Your task to perform on an android device: What is the news today? Image 0: 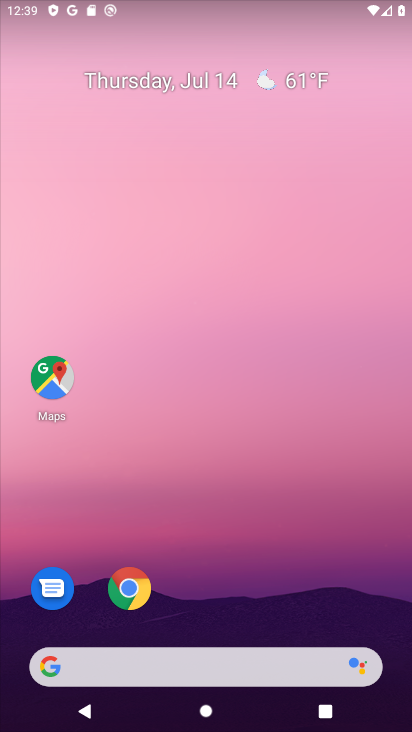
Step 0: drag from (142, 376) to (198, 4)
Your task to perform on an android device: What is the news today? Image 1: 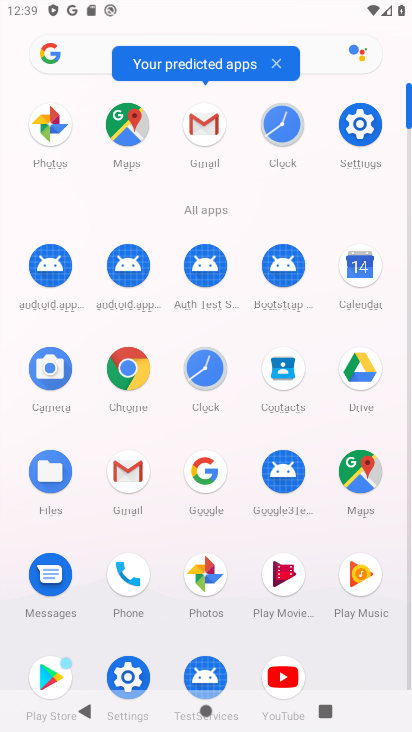
Step 1: click (79, 50)
Your task to perform on an android device: What is the news today? Image 2: 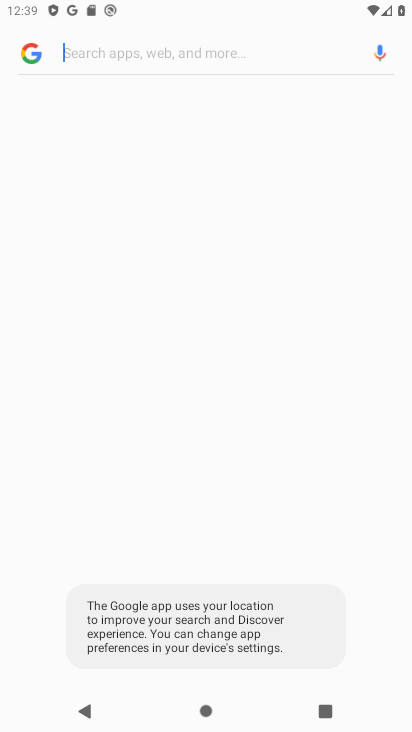
Step 2: click (207, 54)
Your task to perform on an android device: What is the news today? Image 3: 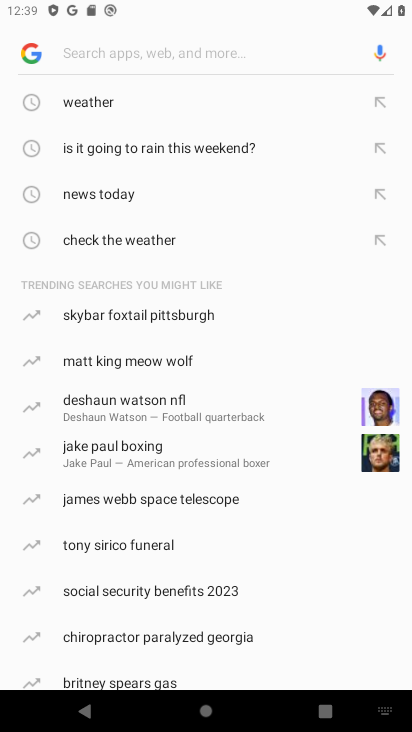
Step 3: type "news today"
Your task to perform on an android device: What is the news today? Image 4: 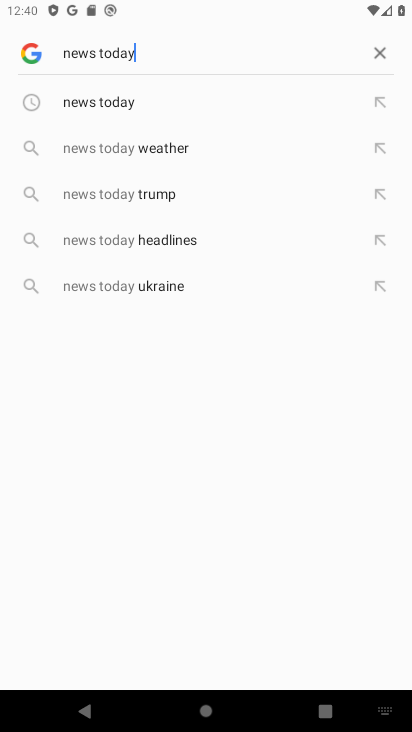
Step 4: click (141, 103)
Your task to perform on an android device: What is the news today? Image 5: 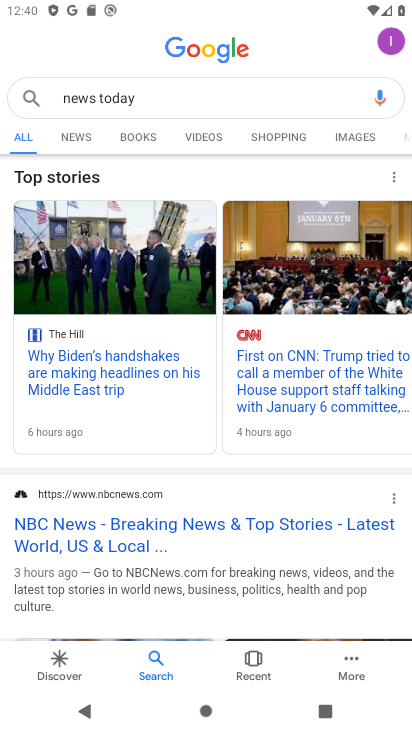
Step 5: task complete